Your task to perform on an android device: Go to network settings Image 0: 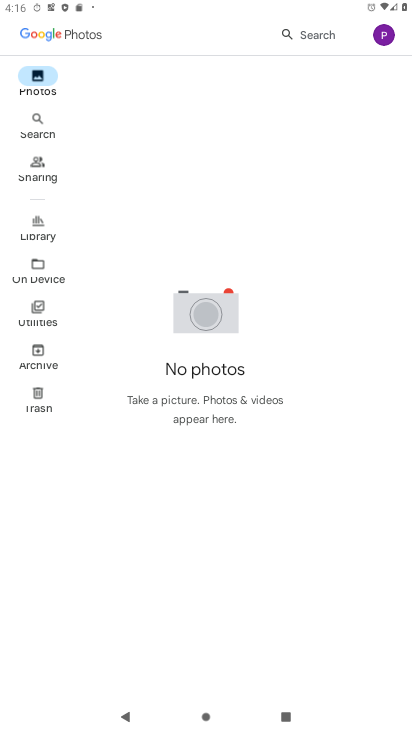
Step 0: press home button
Your task to perform on an android device: Go to network settings Image 1: 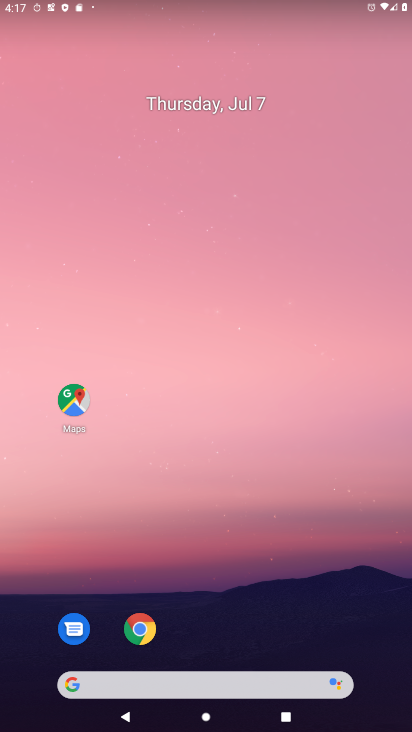
Step 1: drag from (212, 457) to (275, 9)
Your task to perform on an android device: Go to network settings Image 2: 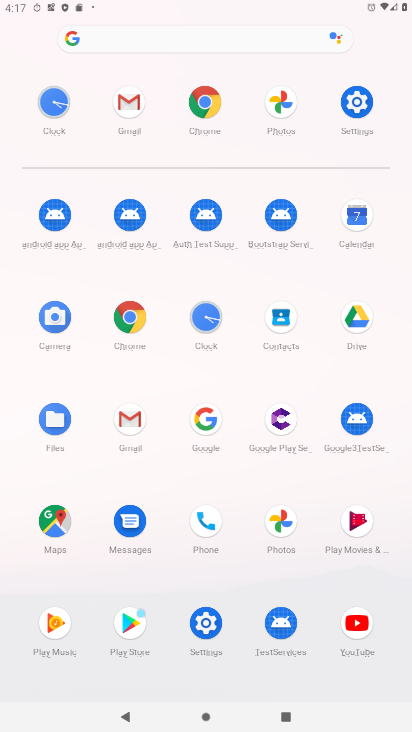
Step 2: click (353, 98)
Your task to perform on an android device: Go to network settings Image 3: 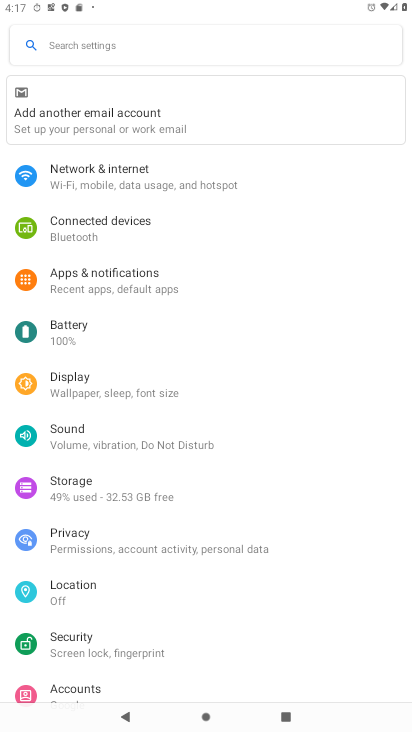
Step 3: click (96, 182)
Your task to perform on an android device: Go to network settings Image 4: 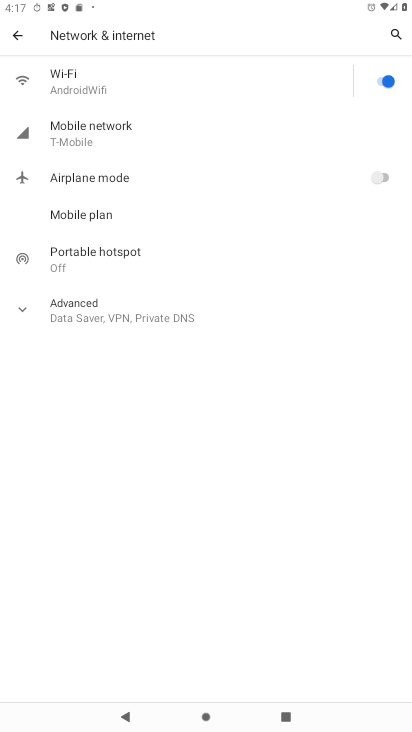
Step 4: task complete